Your task to perform on an android device: Open calendar and show me the second week of next month Image 0: 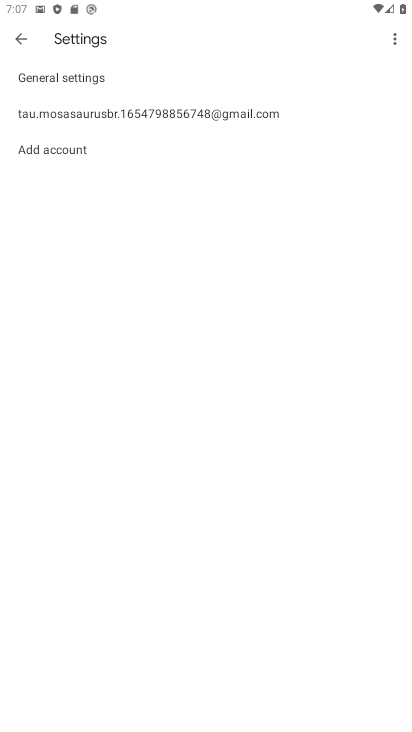
Step 0: press home button
Your task to perform on an android device: Open calendar and show me the second week of next month Image 1: 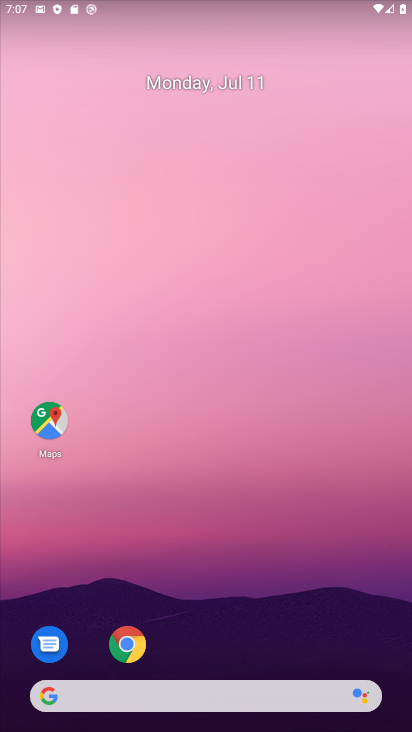
Step 1: drag from (217, 590) to (120, 27)
Your task to perform on an android device: Open calendar and show me the second week of next month Image 2: 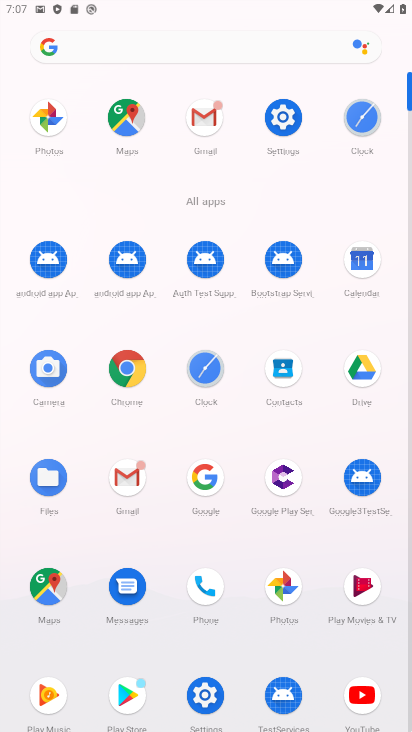
Step 2: click (358, 263)
Your task to perform on an android device: Open calendar and show me the second week of next month Image 3: 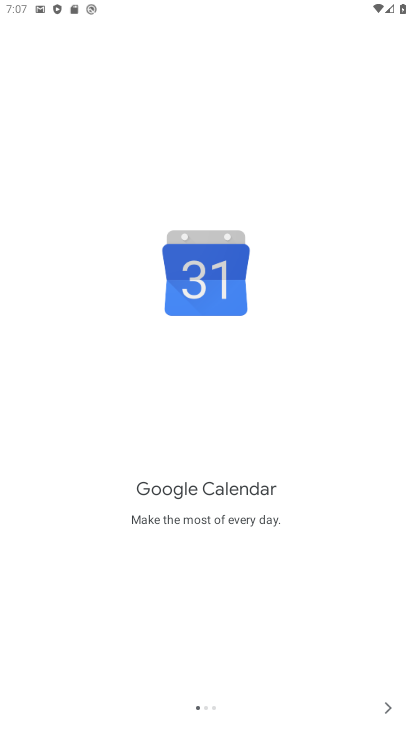
Step 3: click (385, 706)
Your task to perform on an android device: Open calendar and show me the second week of next month Image 4: 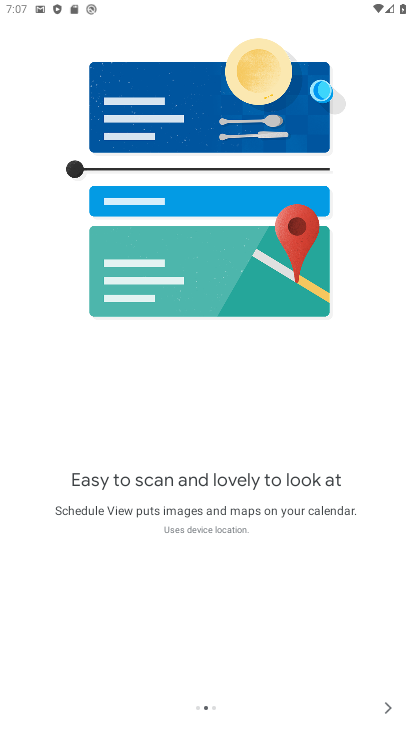
Step 4: click (385, 706)
Your task to perform on an android device: Open calendar and show me the second week of next month Image 5: 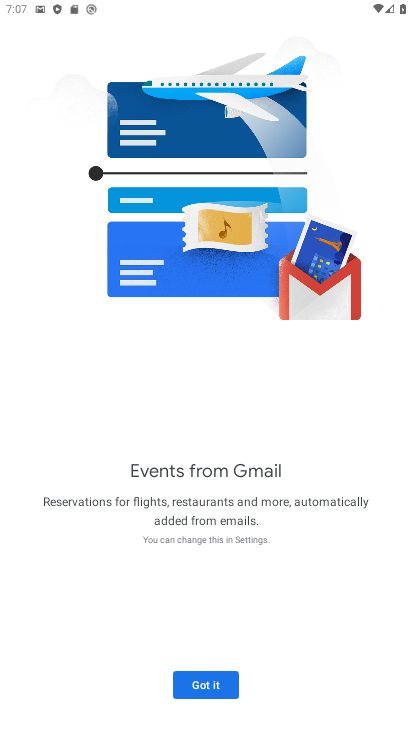
Step 5: click (191, 689)
Your task to perform on an android device: Open calendar and show me the second week of next month Image 6: 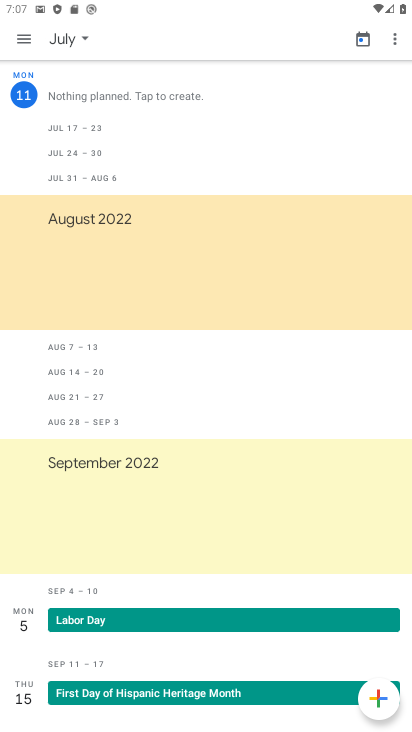
Step 6: click (20, 37)
Your task to perform on an android device: Open calendar and show me the second week of next month Image 7: 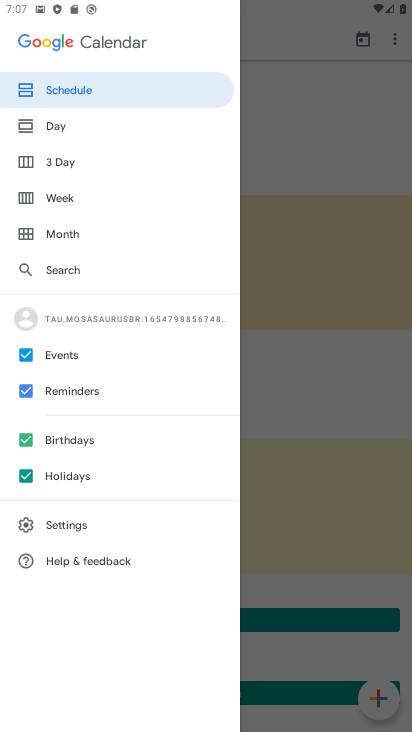
Step 7: click (59, 194)
Your task to perform on an android device: Open calendar and show me the second week of next month Image 8: 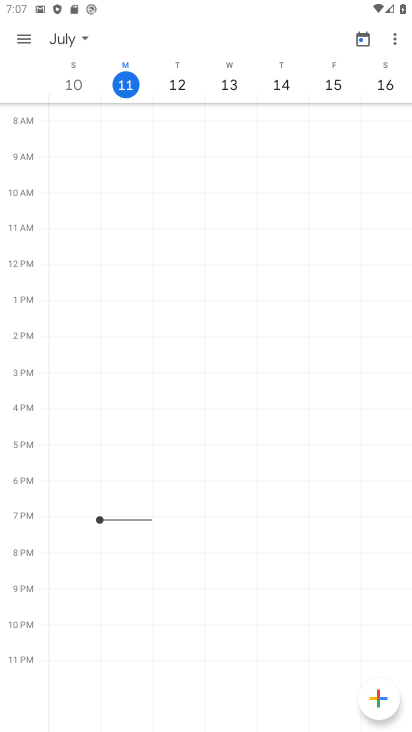
Step 8: click (85, 39)
Your task to perform on an android device: Open calendar and show me the second week of next month Image 9: 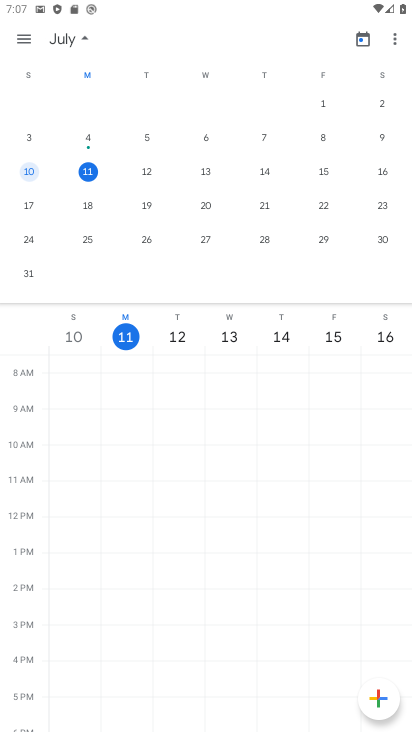
Step 9: drag from (369, 198) to (137, 188)
Your task to perform on an android device: Open calendar and show me the second week of next month Image 10: 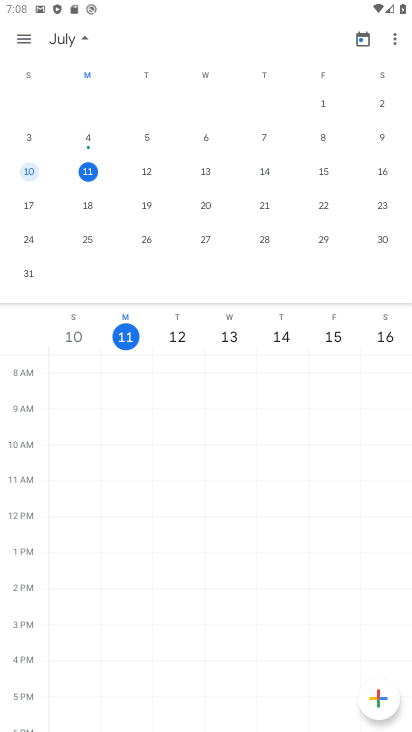
Step 10: drag from (368, 181) to (42, 235)
Your task to perform on an android device: Open calendar and show me the second week of next month Image 11: 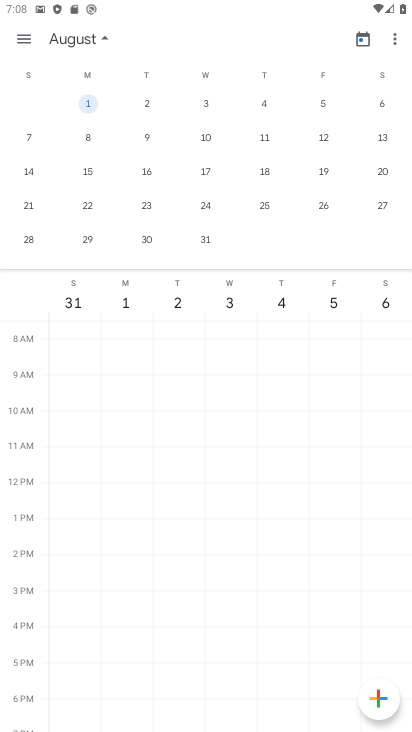
Step 11: click (84, 138)
Your task to perform on an android device: Open calendar and show me the second week of next month Image 12: 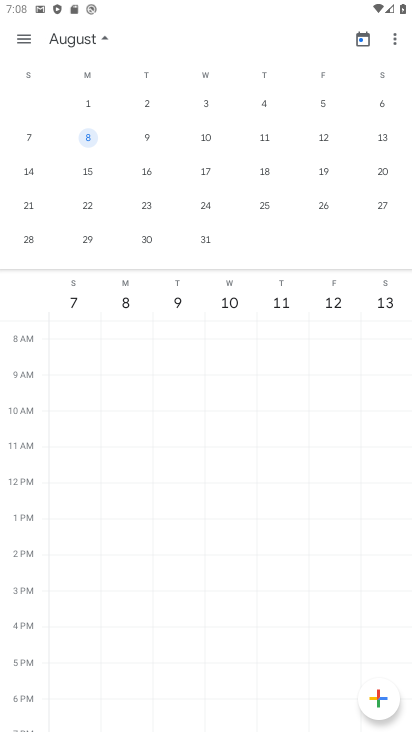
Step 12: task complete